Your task to perform on an android device: Go to Maps Image 0: 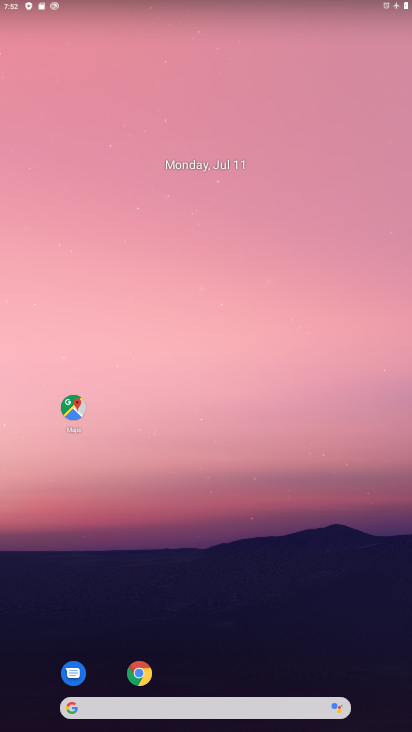
Step 0: drag from (252, 680) to (258, 141)
Your task to perform on an android device: Go to Maps Image 1: 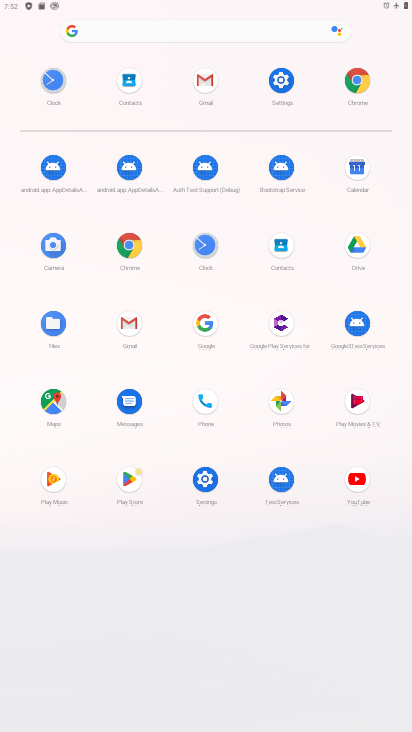
Step 1: click (52, 404)
Your task to perform on an android device: Go to Maps Image 2: 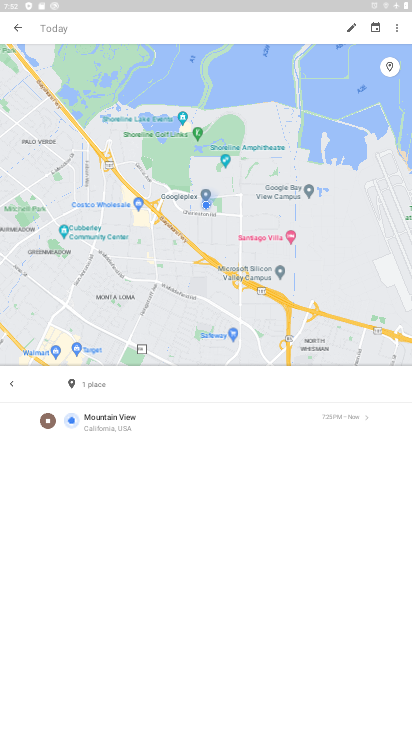
Step 2: task complete